Your task to perform on an android device: Open CNN.com Image 0: 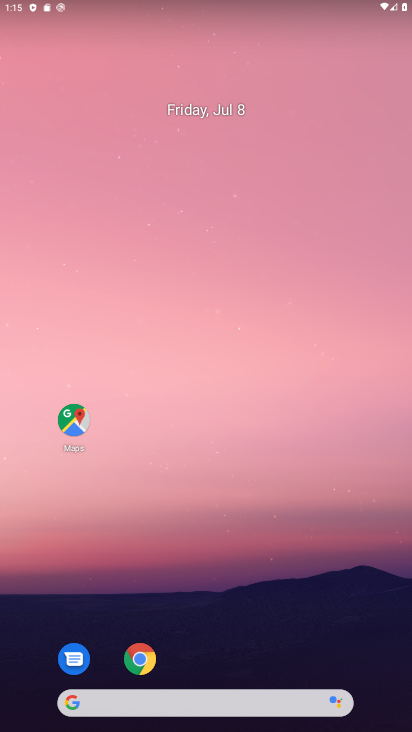
Step 0: click (148, 667)
Your task to perform on an android device: Open CNN.com Image 1: 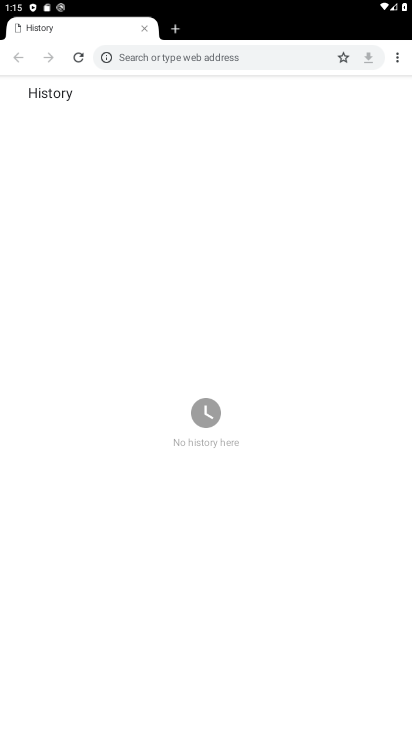
Step 1: click (292, 66)
Your task to perform on an android device: Open CNN.com Image 2: 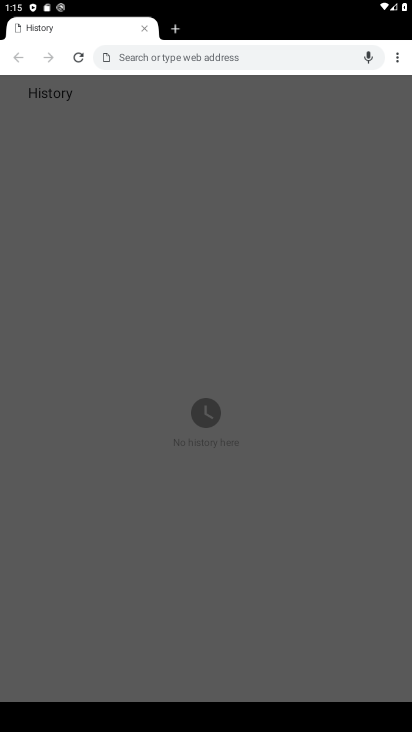
Step 2: type "cnn.com"
Your task to perform on an android device: Open CNN.com Image 3: 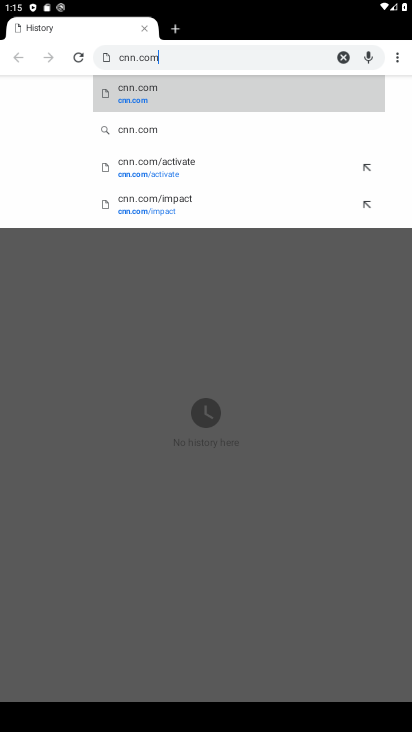
Step 3: click (175, 85)
Your task to perform on an android device: Open CNN.com Image 4: 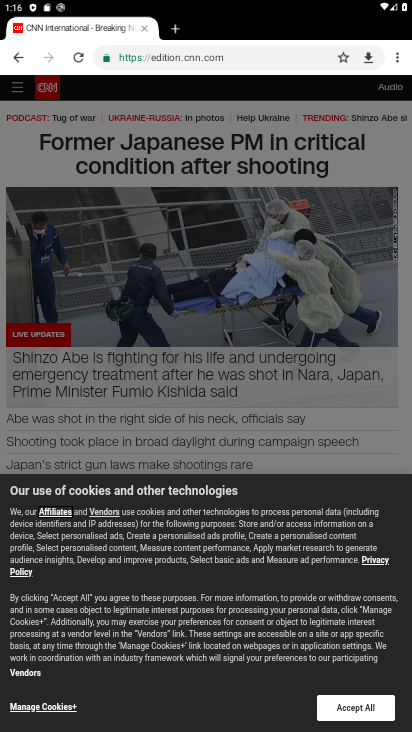
Step 4: task complete